Your task to perform on an android device: open wifi settings Image 0: 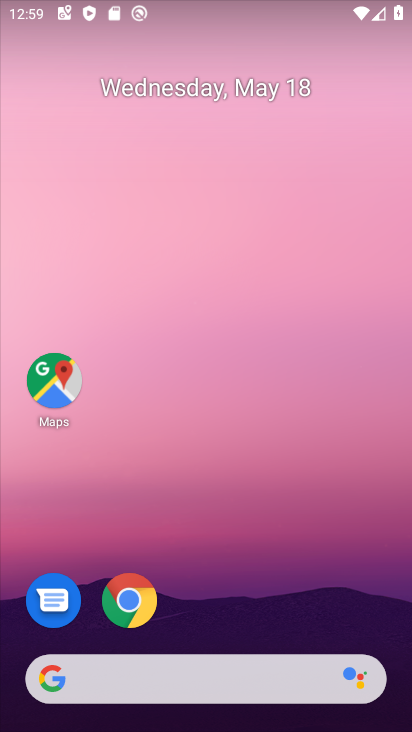
Step 0: drag from (274, 606) to (200, 238)
Your task to perform on an android device: open wifi settings Image 1: 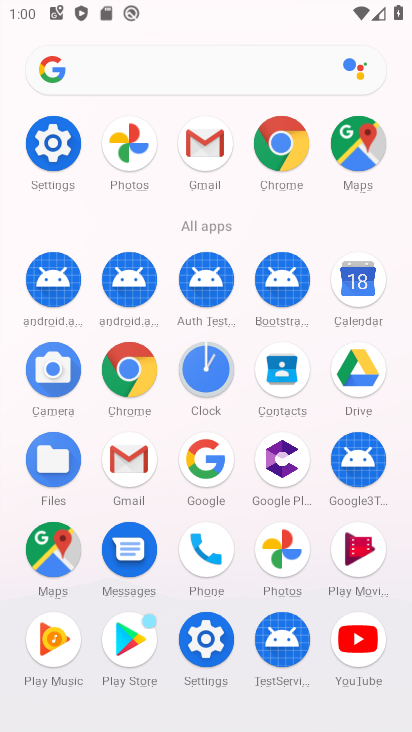
Step 1: click (48, 144)
Your task to perform on an android device: open wifi settings Image 2: 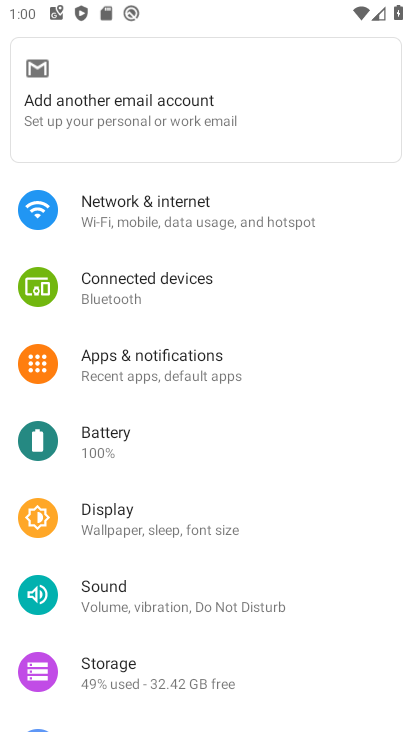
Step 2: click (122, 212)
Your task to perform on an android device: open wifi settings Image 3: 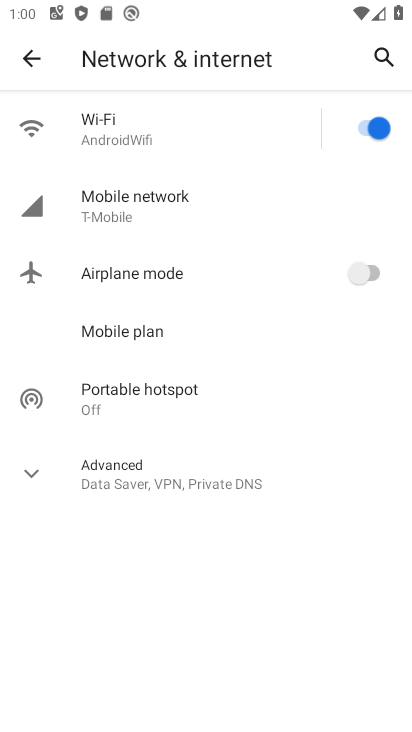
Step 3: click (93, 130)
Your task to perform on an android device: open wifi settings Image 4: 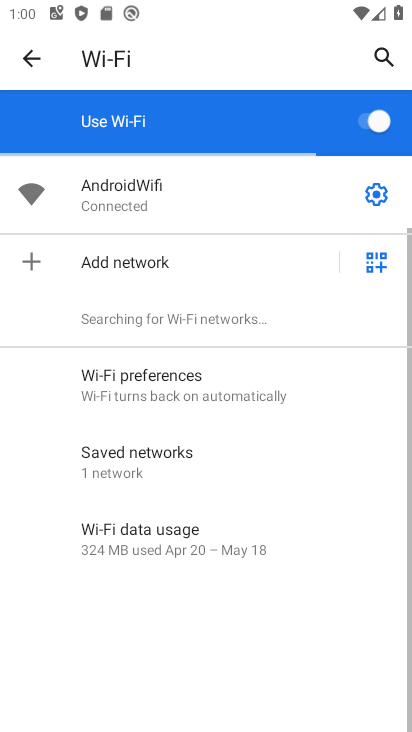
Step 4: click (376, 193)
Your task to perform on an android device: open wifi settings Image 5: 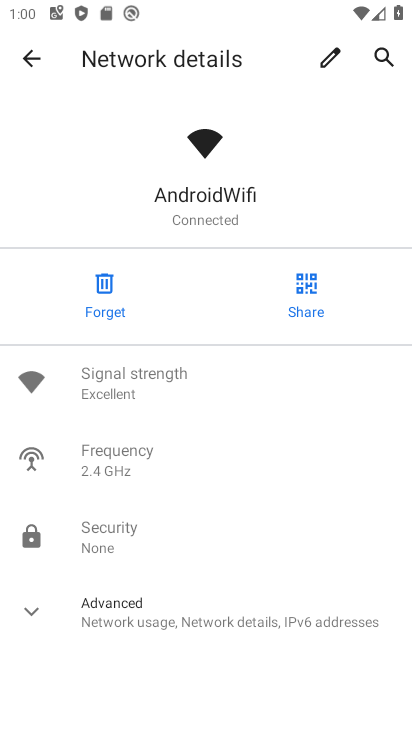
Step 5: task complete